Your task to perform on an android device: Open Google Maps and go to "Timeline" Image 0: 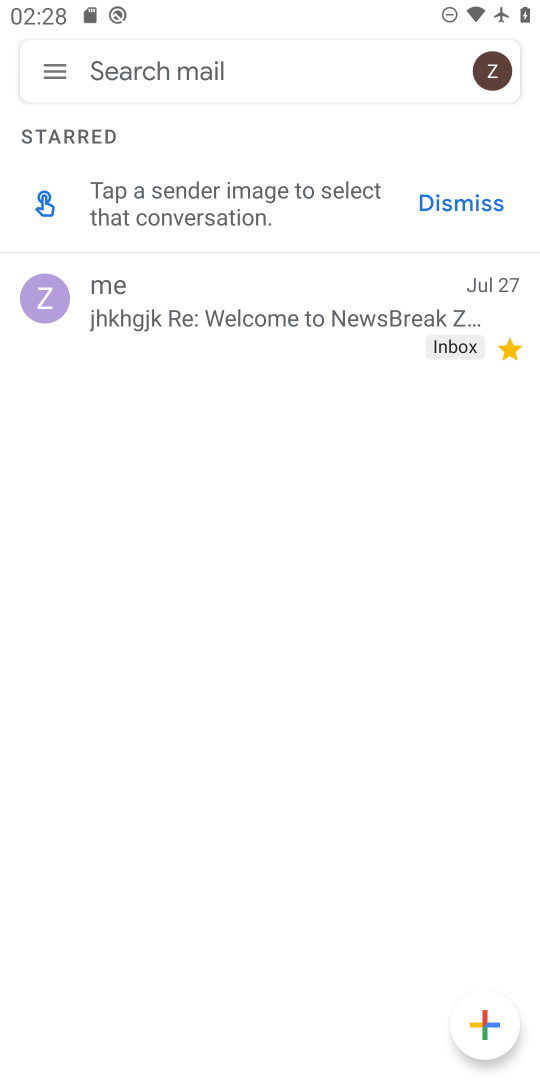
Step 0: press home button
Your task to perform on an android device: Open Google Maps and go to "Timeline" Image 1: 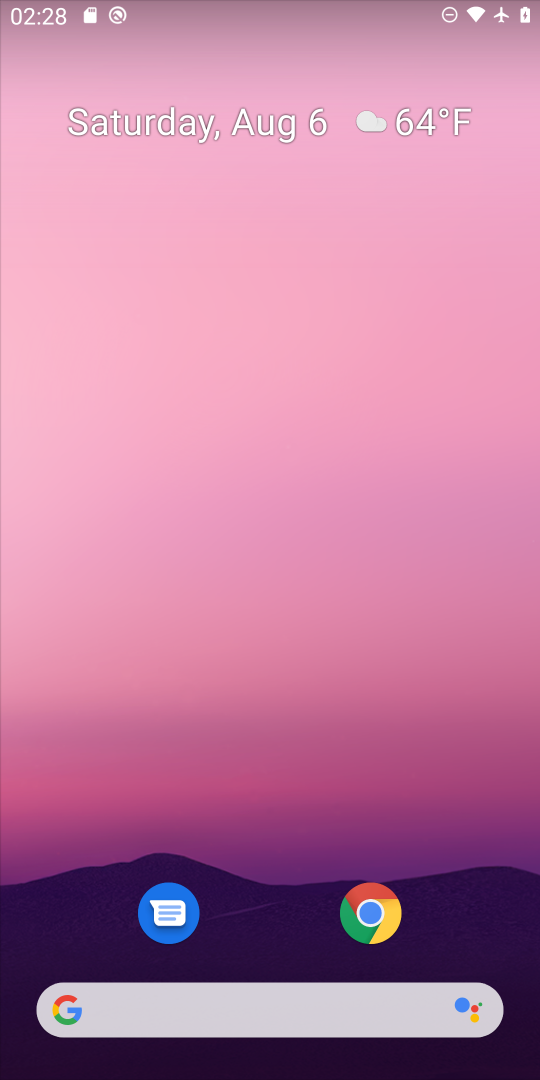
Step 1: drag from (455, 895) to (460, 207)
Your task to perform on an android device: Open Google Maps and go to "Timeline" Image 2: 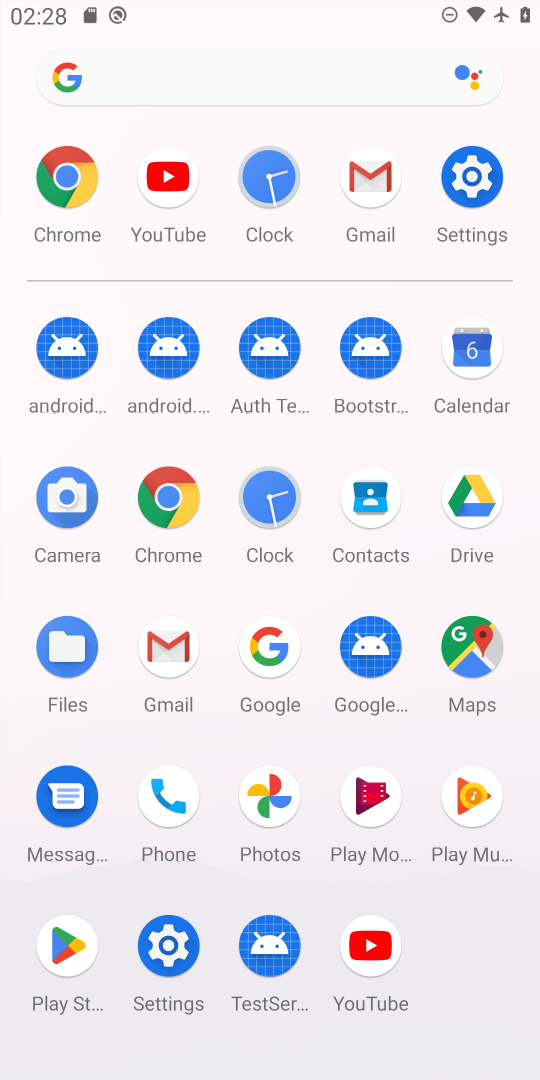
Step 2: click (479, 650)
Your task to perform on an android device: Open Google Maps and go to "Timeline" Image 3: 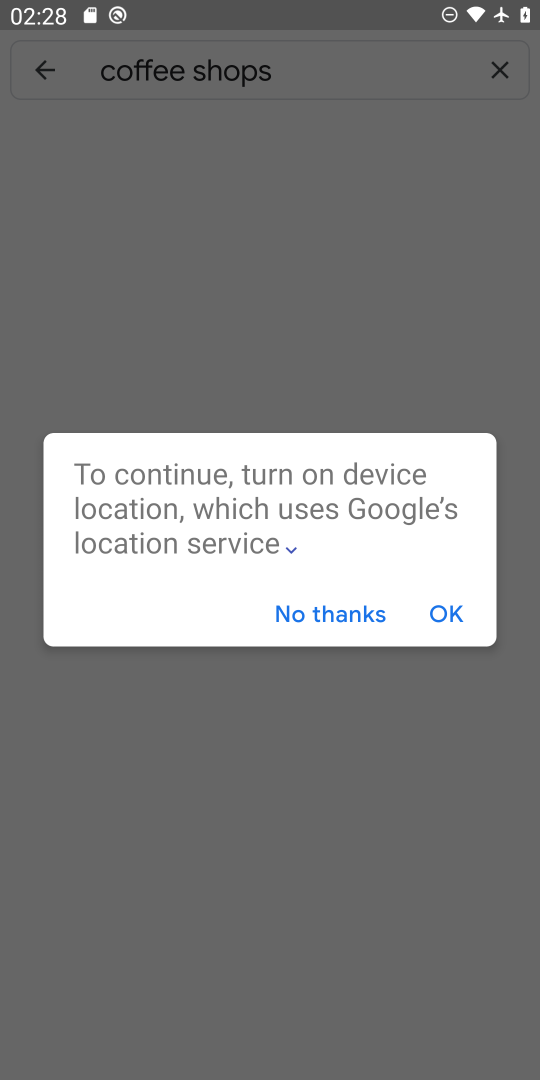
Step 3: press back button
Your task to perform on an android device: Open Google Maps and go to "Timeline" Image 4: 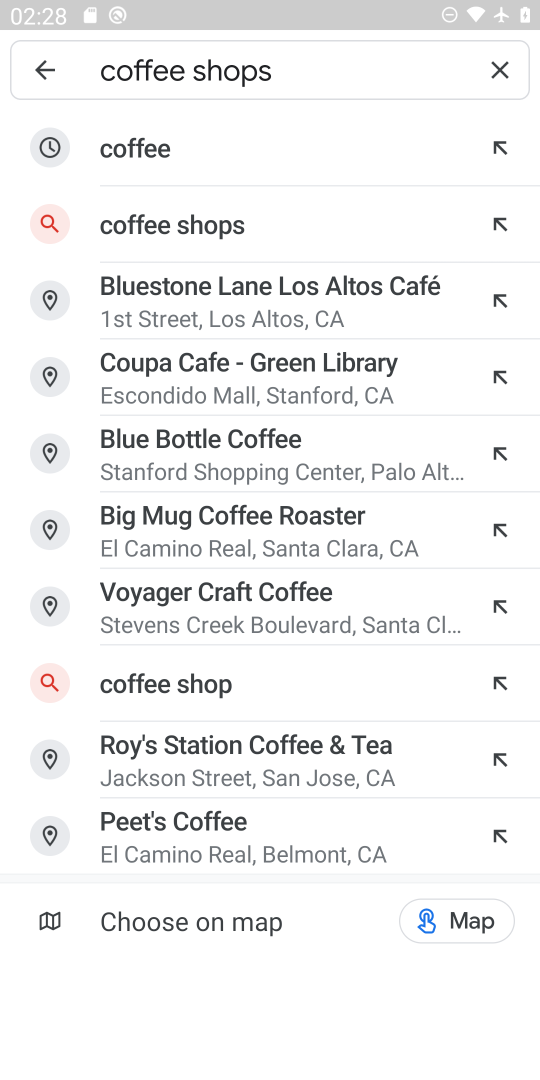
Step 4: press back button
Your task to perform on an android device: Open Google Maps and go to "Timeline" Image 5: 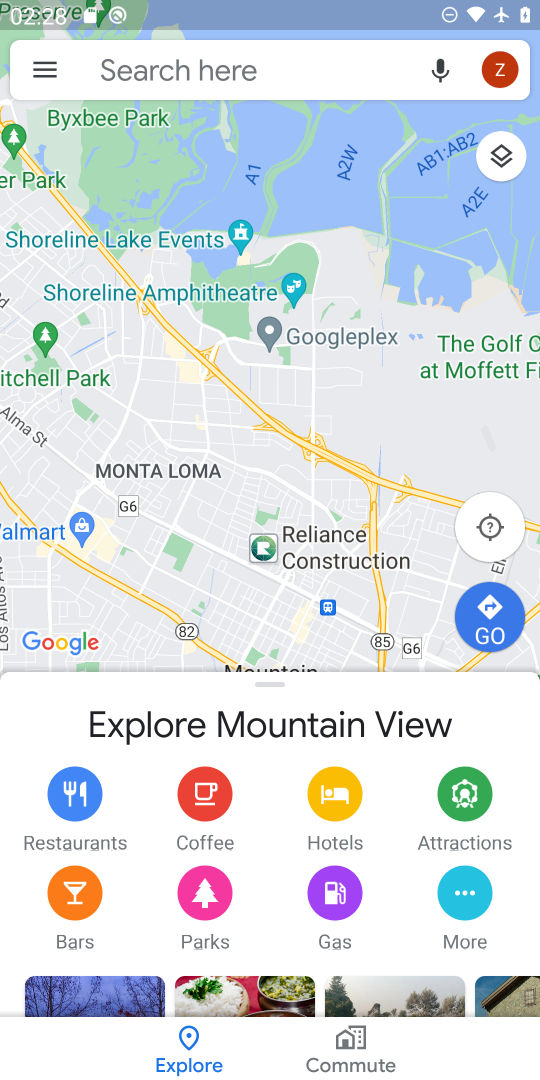
Step 5: click (41, 71)
Your task to perform on an android device: Open Google Maps and go to "Timeline" Image 6: 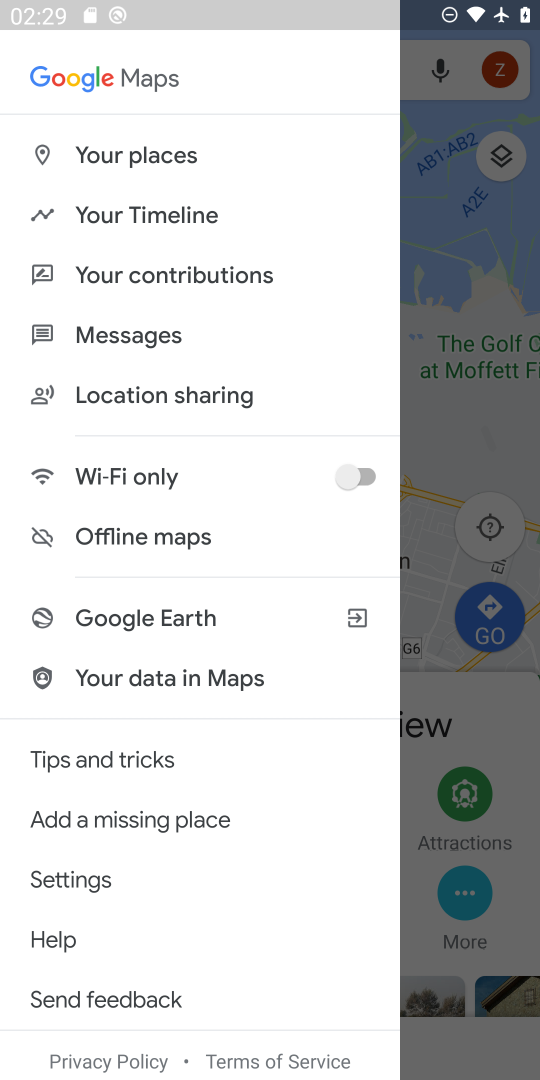
Step 6: click (169, 210)
Your task to perform on an android device: Open Google Maps and go to "Timeline" Image 7: 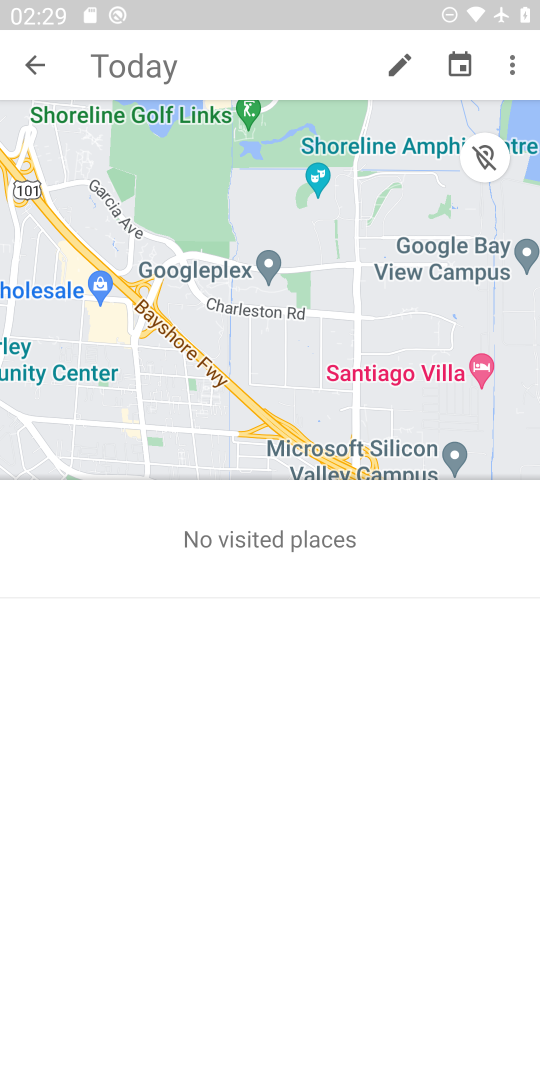
Step 7: task complete